Your task to perform on an android device: find which apps use the phone's location Image 0: 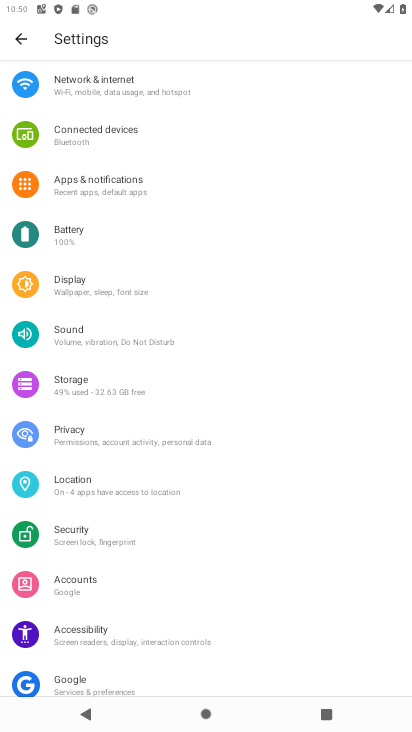
Step 0: click (67, 504)
Your task to perform on an android device: find which apps use the phone's location Image 1: 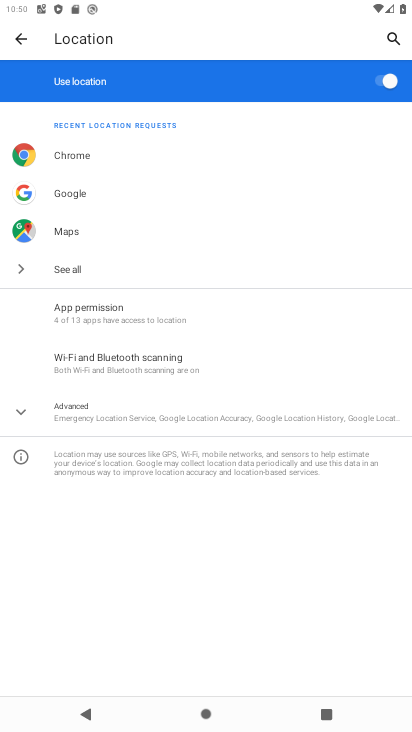
Step 1: click (82, 326)
Your task to perform on an android device: find which apps use the phone's location Image 2: 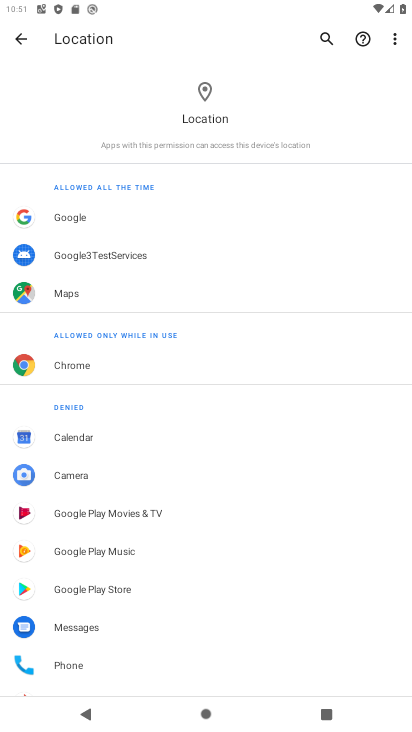
Step 2: task complete